Your task to perform on an android device: turn on javascript in the chrome app Image 0: 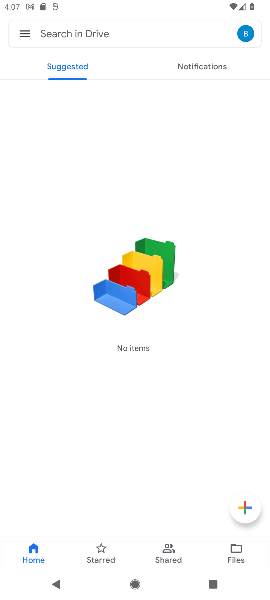
Step 0: press home button
Your task to perform on an android device: turn on javascript in the chrome app Image 1: 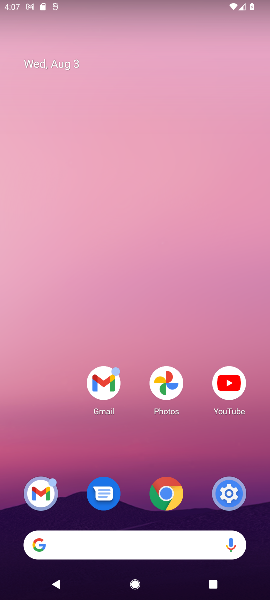
Step 1: drag from (63, 441) to (58, 140)
Your task to perform on an android device: turn on javascript in the chrome app Image 2: 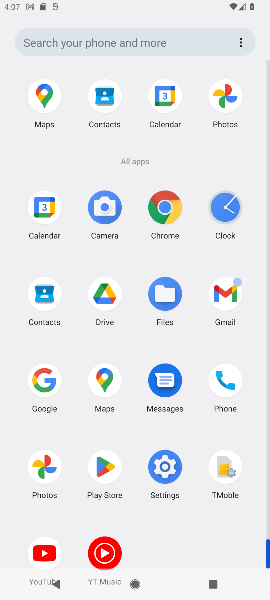
Step 2: click (169, 205)
Your task to perform on an android device: turn on javascript in the chrome app Image 3: 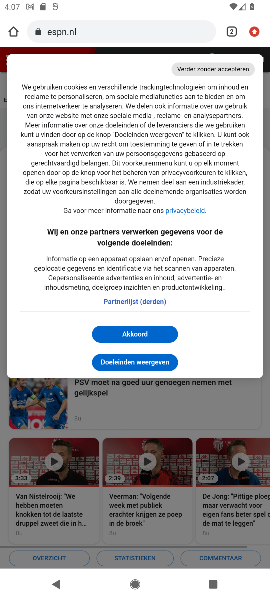
Step 3: click (253, 29)
Your task to perform on an android device: turn on javascript in the chrome app Image 4: 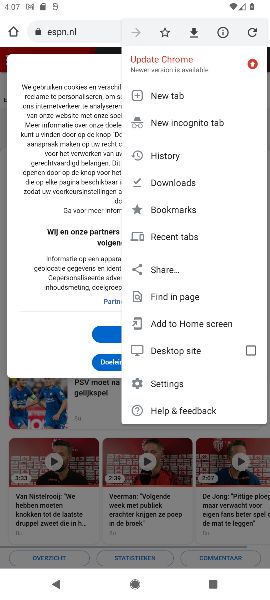
Step 4: click (216, 381)
Your task to perform on an android device: turn on javascript in the chrome app Image 5: 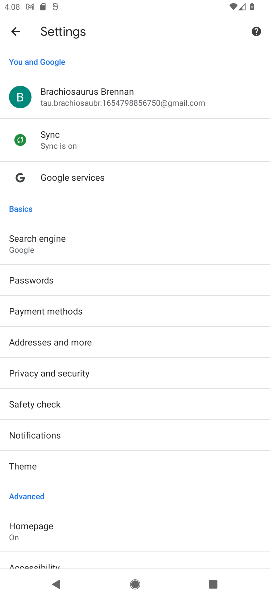
Step 5: drag from (193, 445) to (196, 395)
Your task to perform on an android device: turn on javascript in the chrome app Image 6: 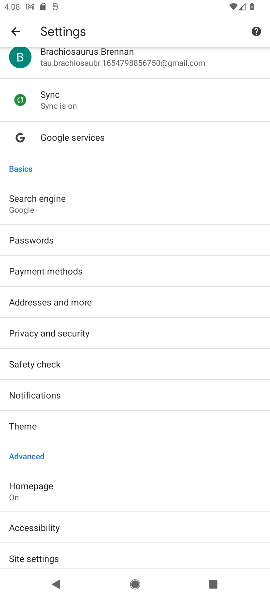
Step 6: drag from (172, 499) to (176, 435)
Your task to perform on an android device: turn on javascript in the chrome app Image 7: 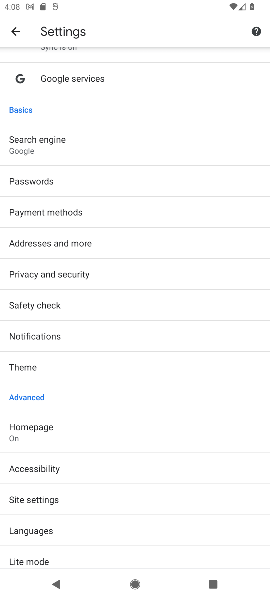
Step 7: click (159, 494)
Your task to perform on an android device: turn on javascript in the chrome app Image 8: 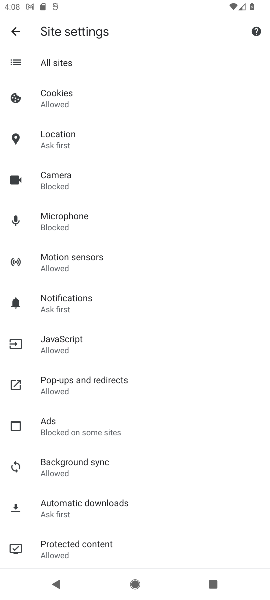
Step 8: click (134, 345)
Your task to perform on an android device: turn on javascript in the chrome app Image 9: 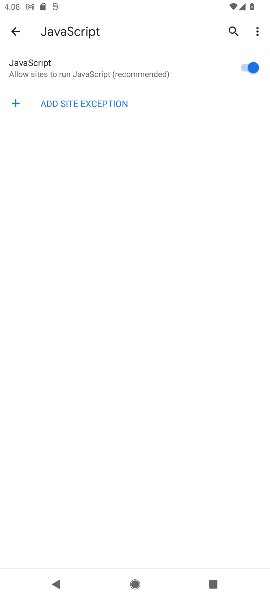
Step 9: task complete